Your task to perform on an android device: Open wifi settings Image 0: 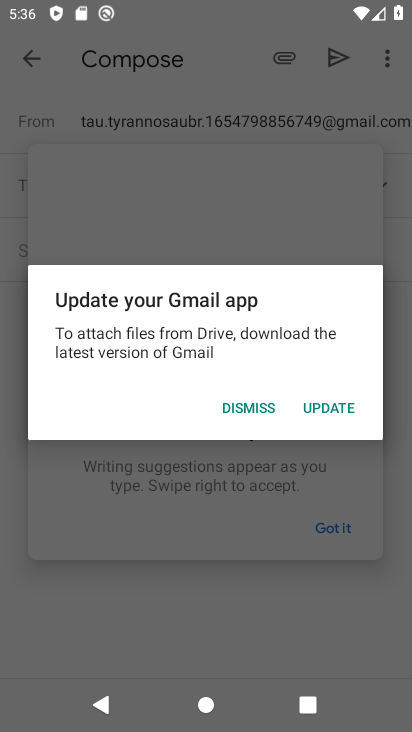
Step 0: press home button
Your task to perform on an android device: Open wifi settings Image 1: 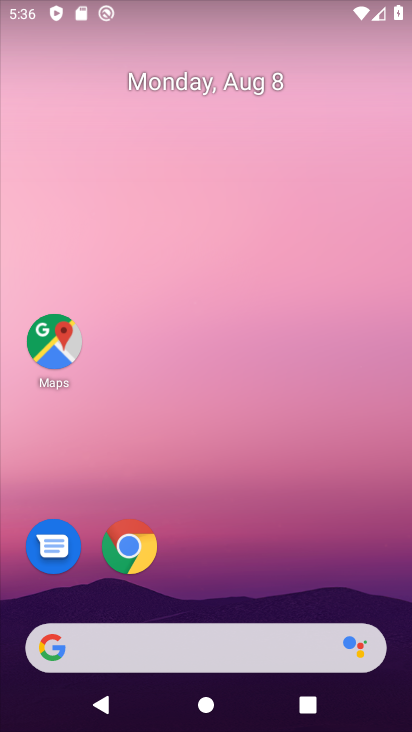
Step 1: drag from (198, 550) to (198, 166)
Your task to perform on an android device: Open wifi settings Image 2: 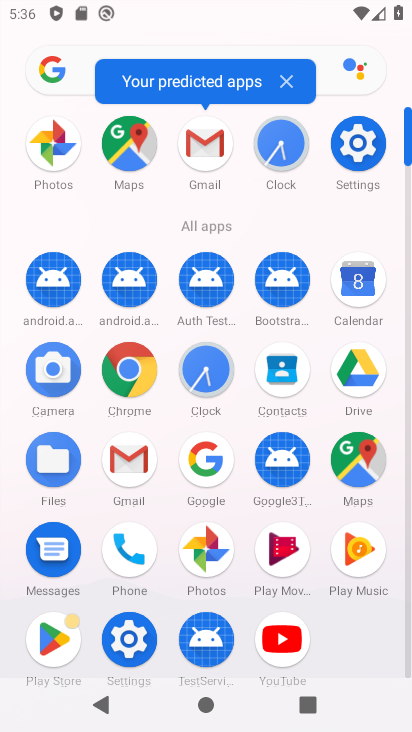
Step 2: click (349, 159)
Your task to perform on an android device: Open wifi settings Image 3: 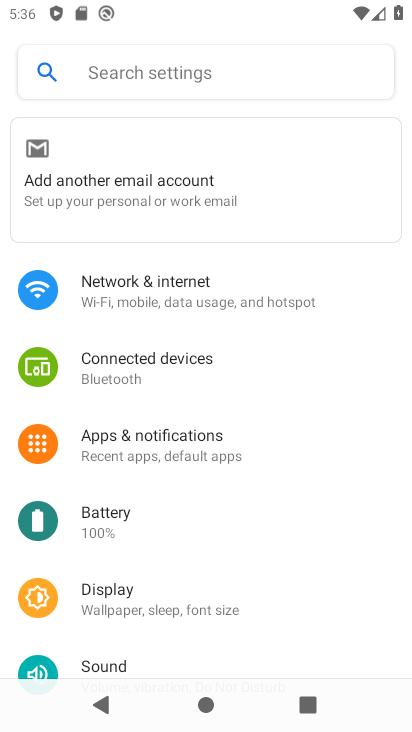
Step 3: click (213, 289)
Your task to perform on an android device: Open wifi settings Image 4: 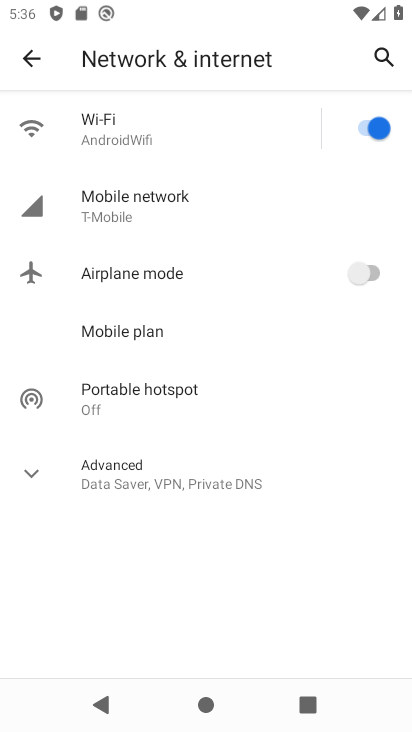
Step 4: click (170, 132)
Your task to perform on an android device: Open wifi settings Image 5: 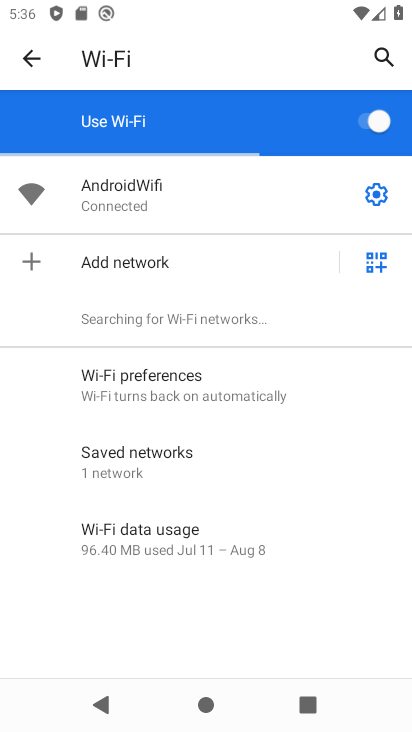
Step 5: task complete